Your task to perform on an android device: Show me popular videos on Youtube Image 0: 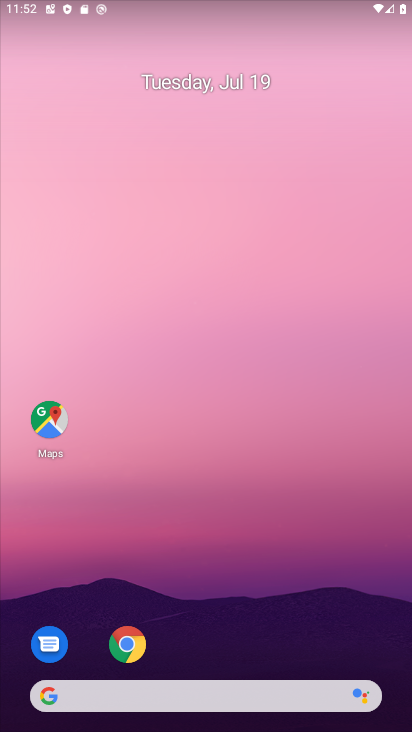
Step 0: drag from (366, 625) to (316, 5)
Your task to perform on an android device: Show me popular videos on Youtube Image 1: 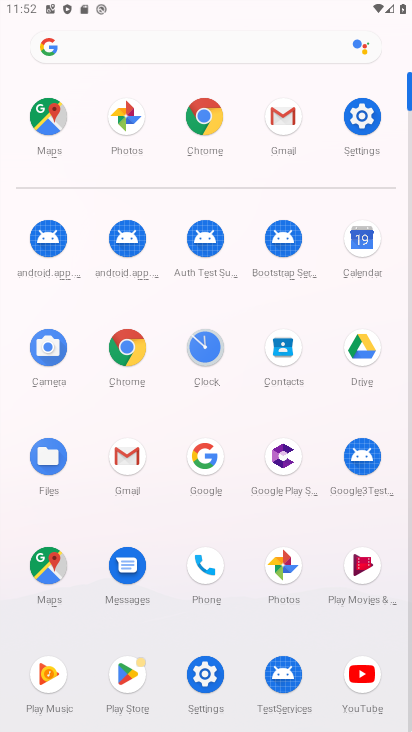
Step 1: click (370, 684)
Your task to perform on an android device: Show me popular videos on Youtube Image 2: 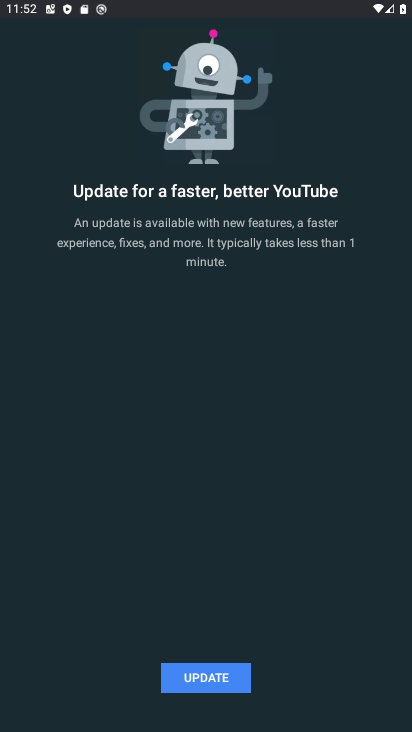
Step 2: click (187, 693)
Your task to perform on an android device: Show me popular videos on Youtube Image 3: 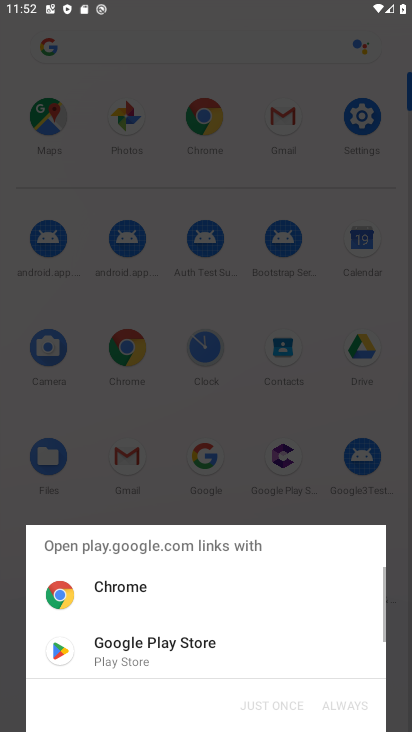
Step 3: click (193, 661)
Your task to perform on an android device: Show me popular videos on Youtube Image 4: 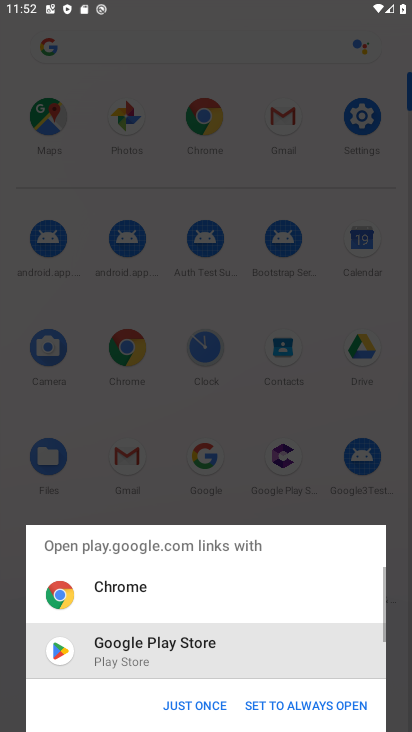
Step 4: click (196, 705)
Your task to perform on an android device: Show me popular videos on Youtube Image 5: 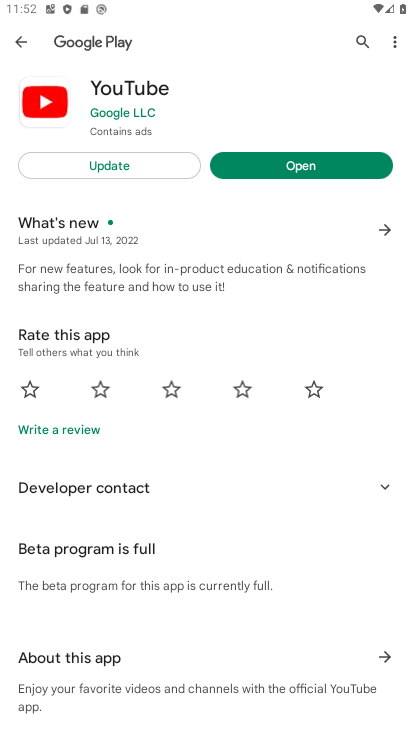
Step 5: click (117, 173)
Your task to perform on an android device: Show me popular videos on Youtube Image 6: 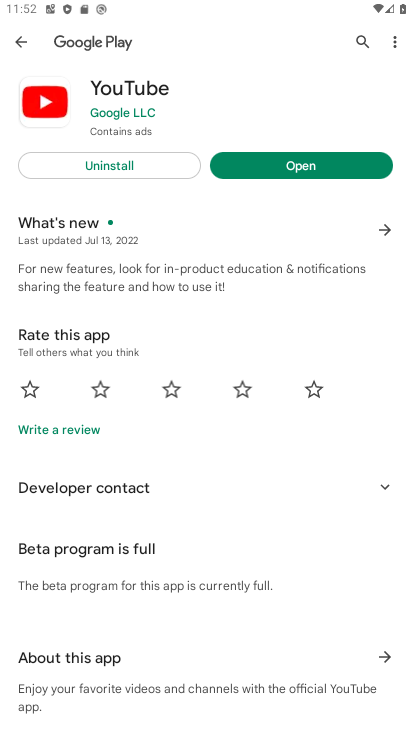
Step 6: click (306, 174)
Your task to perform on an android device: Show me popular videos on Youtube Image 7: 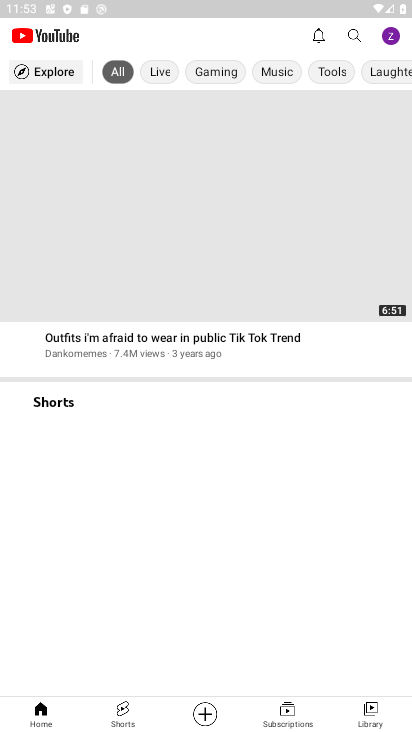
Step 7: click (345, 38)
Your task to perform on an android device: Show me popular videos on Youtube Image 8: 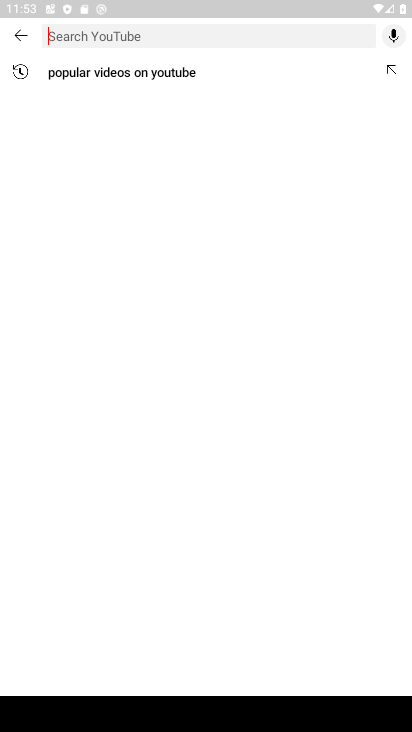
Step 8: type "popular videos on Youtube"
Your task to perform on an android device: Show me popular videos on Youtube Image 9: 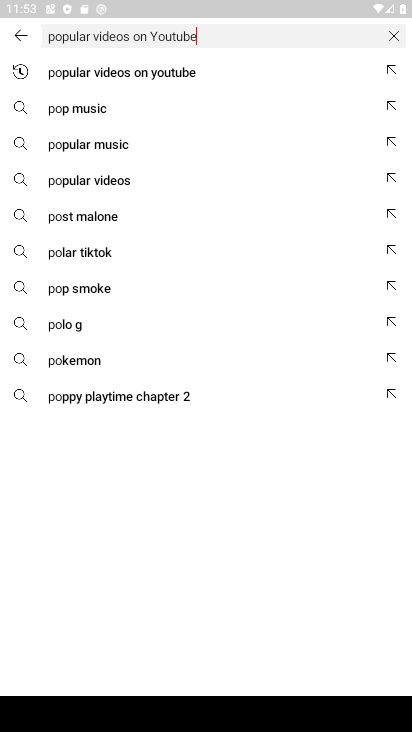
Step 9: type ""
Your task to perform on an android device: Show me popular videos on Youtube Image 10: 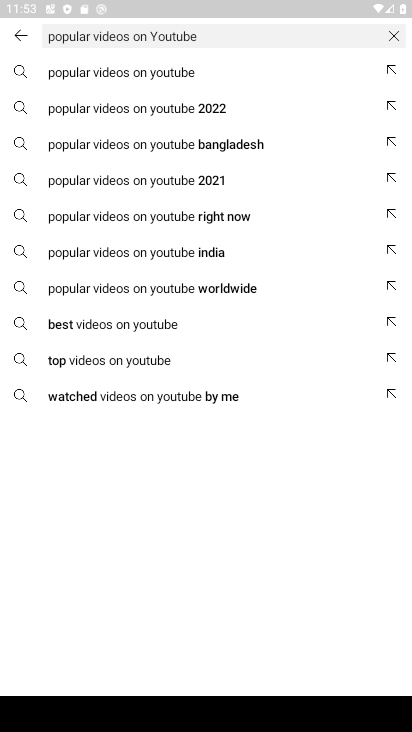
Step 10: click (128, 71)
Your task to perform on an android device: Show me popular videos on Youtube Image 11: 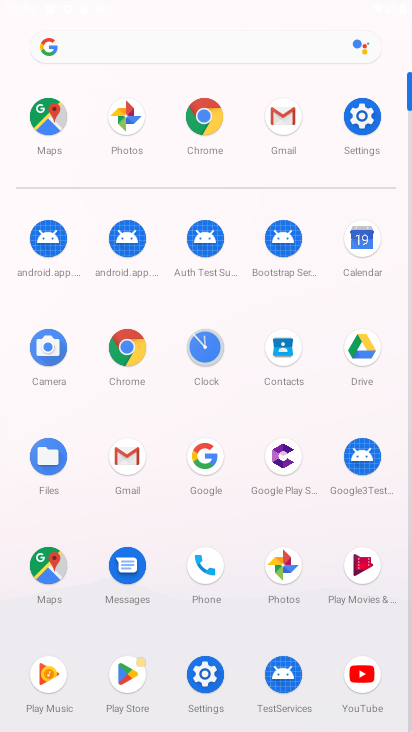
Step 11: task complete